Your task to perform on an android device: Go to calendar. Show me events next week Image 0: 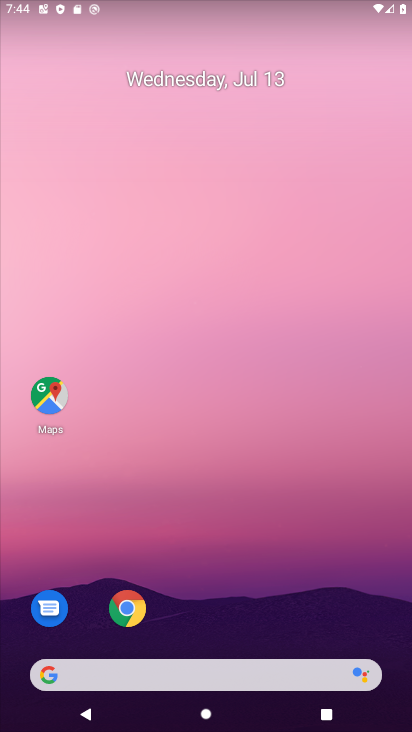
Step 0: drag from (204, 642) to (223, 12)
Your task to perform on an android device: Go to calendar. Show me events next week Image 1: 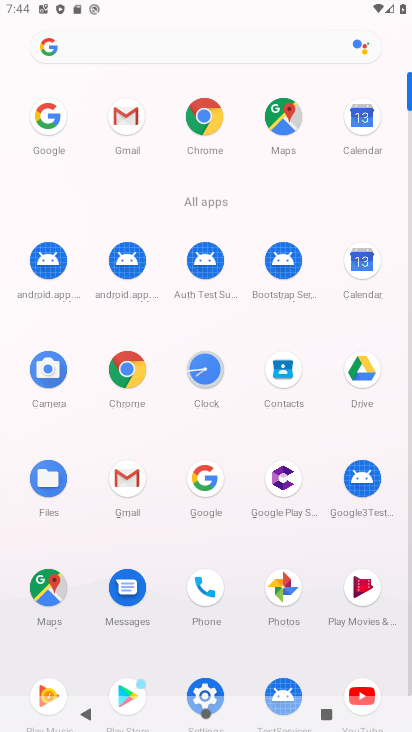
Step 1: click (362, 261)
Your task to perform on an android device: Go to calendar. Show me events next week Image 2: 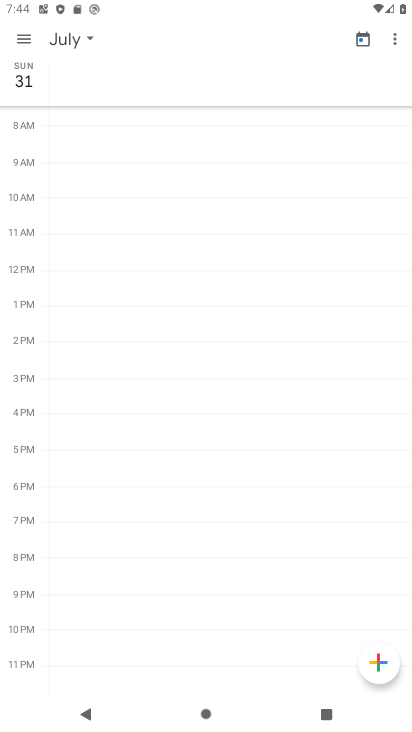
Step 2: click (31, 44)
Your task to perform on an android device: Go to calendar. Show me events next week Image 3: 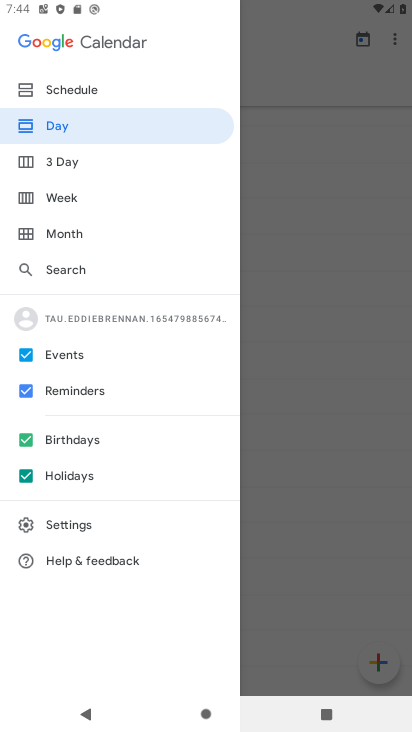
Step 3: click (83, 191)
Your task to perform on an android device: Go to calendar. Show me events next week Image 4: 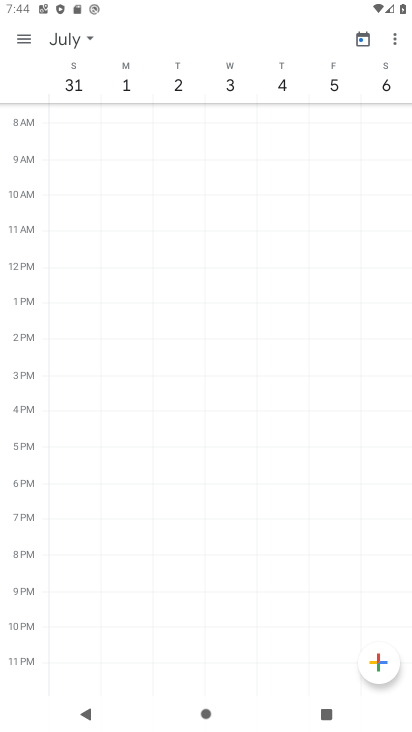
Step 4: task complete